Your task to perform on an android device: Look up the best rated gaming chairs on Target. Image 0: 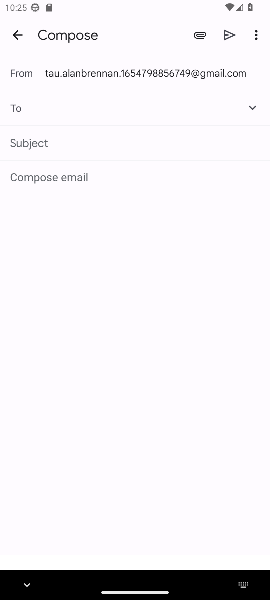
Step 0: press home button
Your task to perform on an android device: Look up the best rated gaming chairs on Target. Image 1: 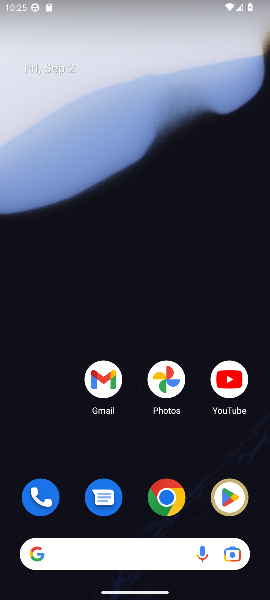
Step 1: drag from (134, 505) to (167, 65)
Your task to perform on an android device: Look up the best rated gaming chairs on Target. Image 2: 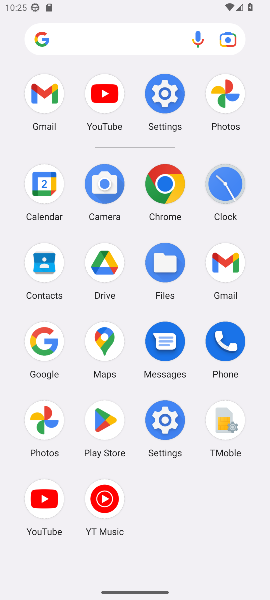
Step 2: click (51, 345)
Your task to perform on an android device: Look up the best rated gaming chairs on Target. Image 3: 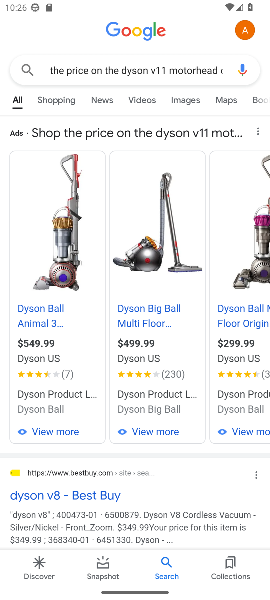
Step 3: click (179, 68)
Your task to perform on an android device: Look up the best rated gaming chairs on Target. Image 4: 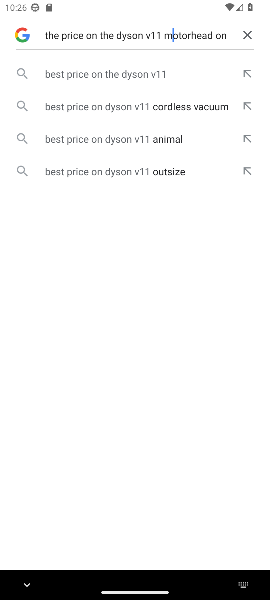
Step 4: click (244, 34)
Your task to perform on an android device: Look up the best rated gaming chairs on Target. Image 5: 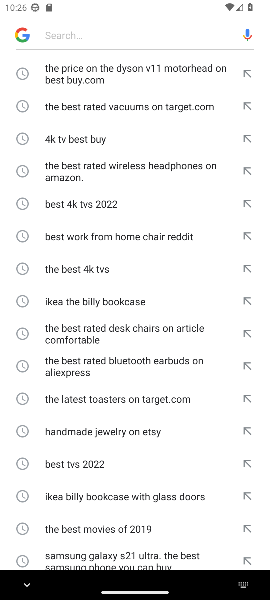
Step 5: click (154, 34)
Your task to perform on an android device: Look up the best rated gaming chairs on Target. Image 6: 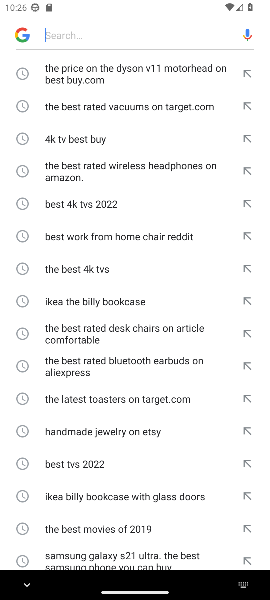
Step 6: type "the best rated gaming chairs on Target"
Your task to perform on an android device: Look up the best rated gaming chairs on Target. Image 7: 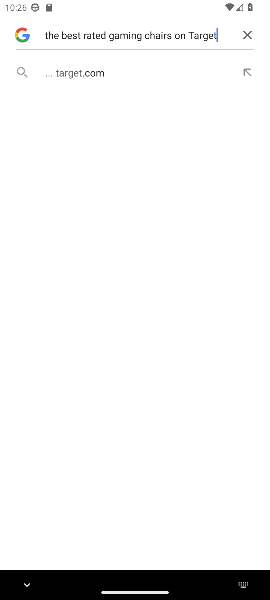
Step 7: click (86, 70)
Your task to perform on an android device: Look up the best rated gaming chairs on Target. Image 8: 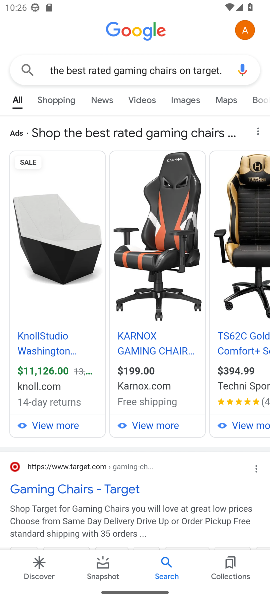
Step 8: task complete